Your task to perform on an android device: show emergency info Image 0: 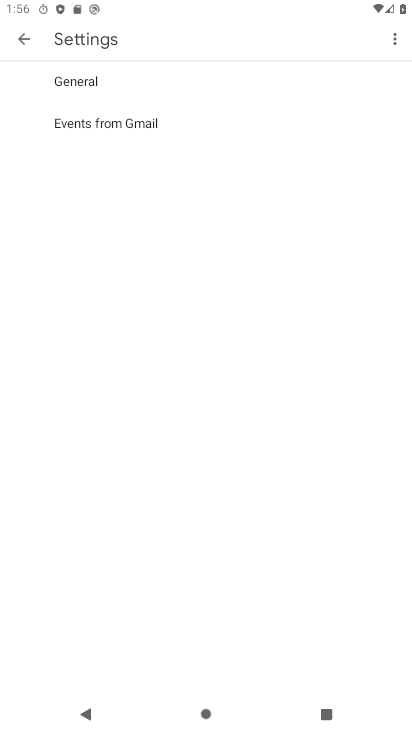
Step 0: press home button
Your task to perform on an android device: show emergency info Image 1: 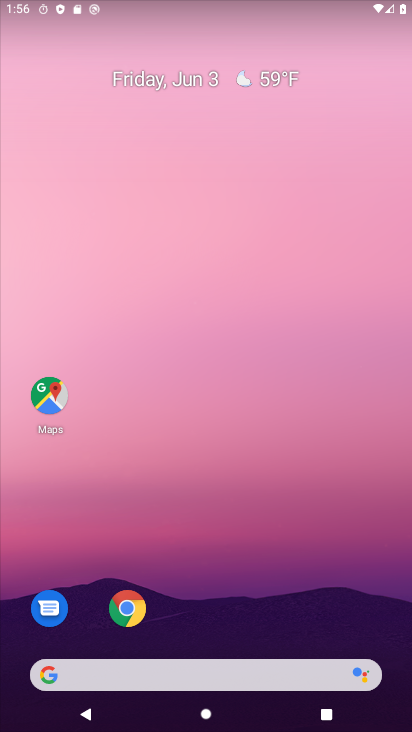
Step 1: drag from (200, 670) to (324, 141)
Your task to perform on an android device: show emergency info Image 2: 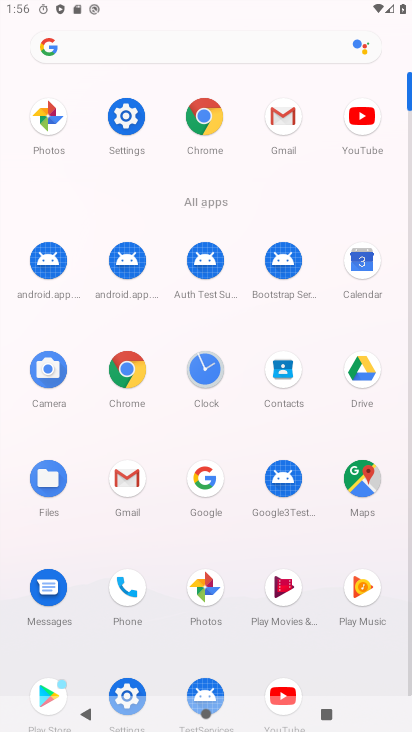
Step 2: click (138, 137)
Your task to perform on an android device: show emergency info Image 3: 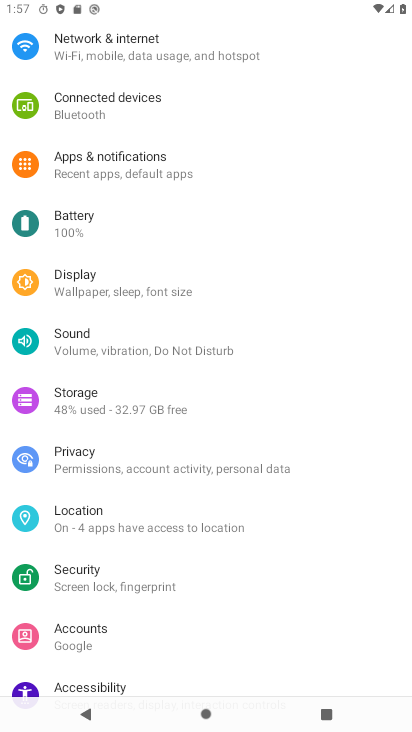
Step 3: drag from (73, 548) to (33, 26)
Your task to perform on an android device: show emergency info Image 4: 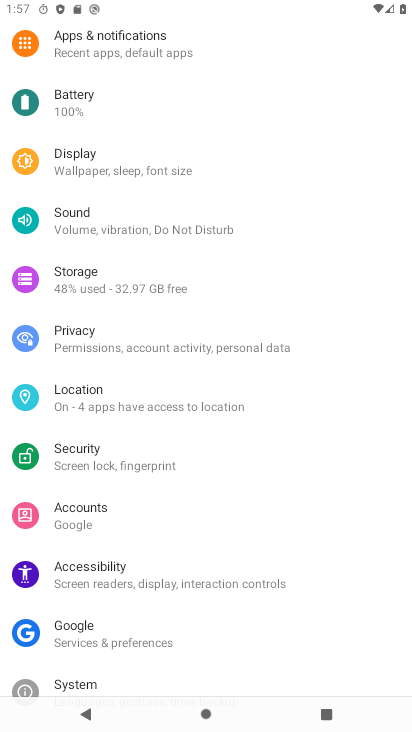
Step 4: drag from (80, 639) to (78, 327)
Your task to perform on an android device: show emergency info Image 5: 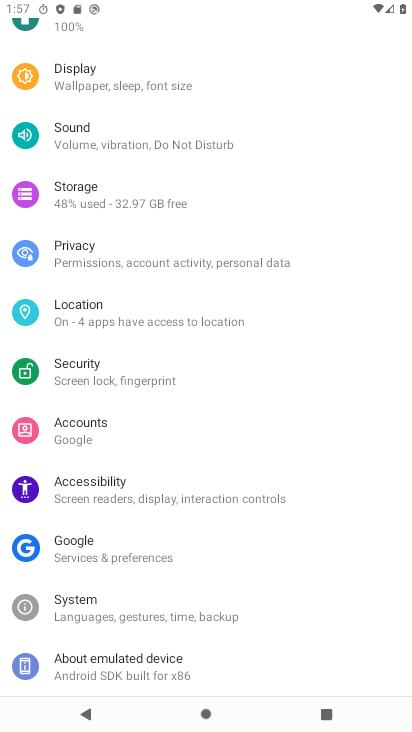
Step 5: click (137, 683)
Your task to perform on an android device: show emergency info Image 6: 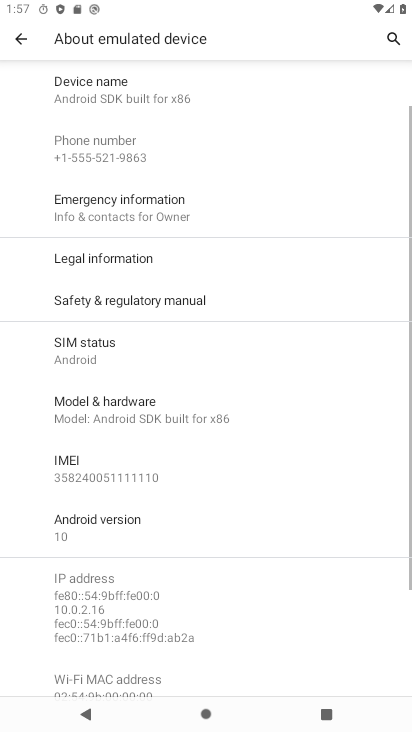
Step 6: click (180, 206)
Your task to perform on an android device: show emergency info Image 7: 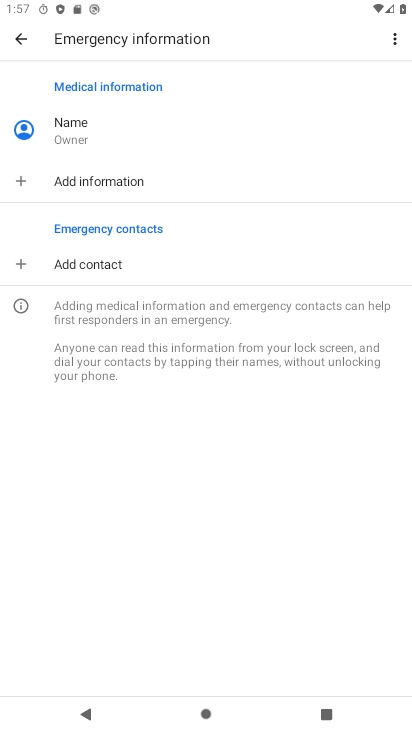
Step 7: task complete